Your task to perform on an android device: Open settings Image 0: 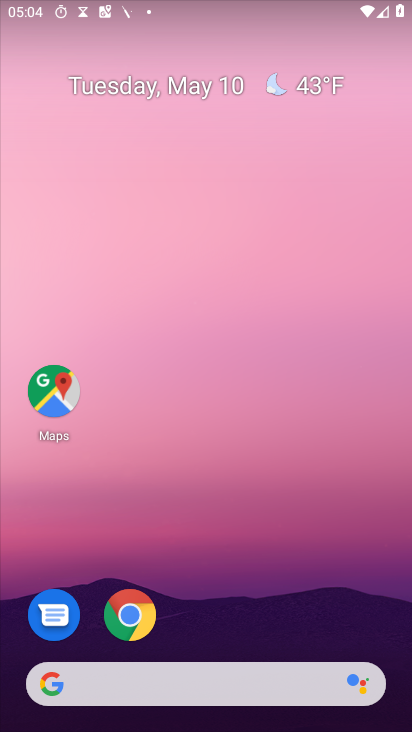
Step 0: drag from (255, 602) to (254, 28)
Your task to perform on an android device: Open settings Image 1: 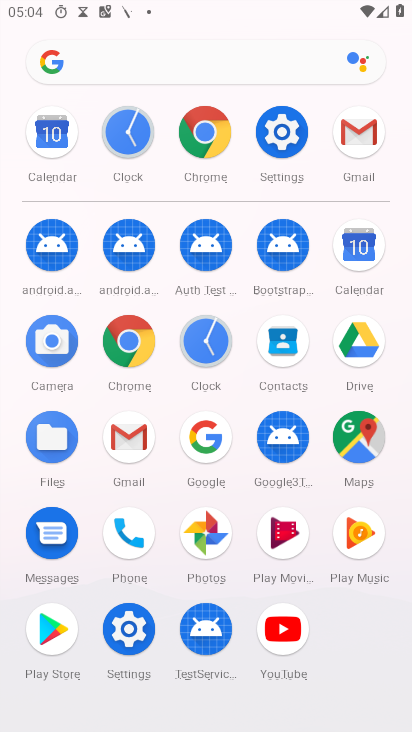
Step 1: click (292, 134)
Your task to perform on an android device: Open settings Image 2: 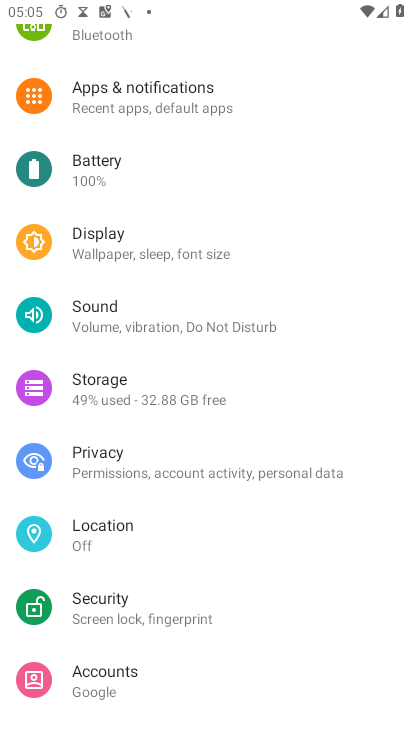
Step 2: task complete